Your task to perform on an android device: Go to Wikipedia Image 0: 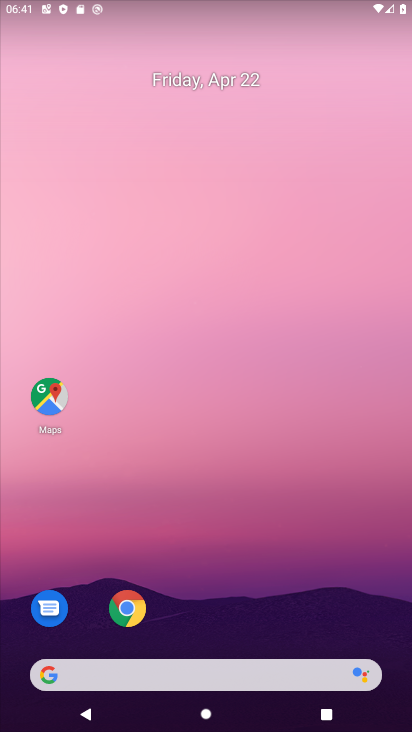
Step 0: drag from (221, 631) to (211, 174)
Your task to perform on an android device: Go to Wikipedia Image 1: 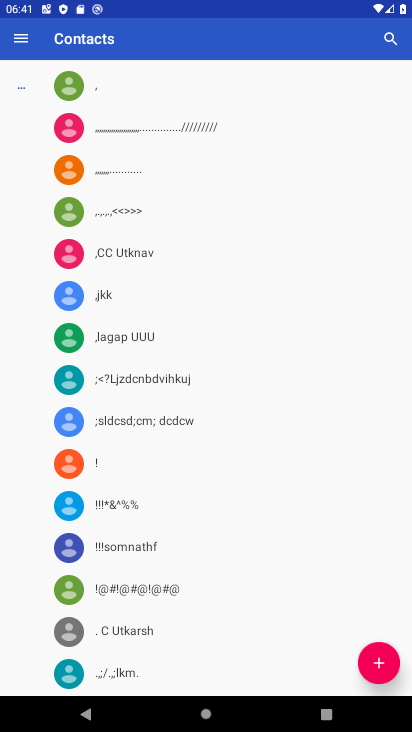
Step 1: press home button
Your task to perform on an android device: Go to Wikipedia Image 2: 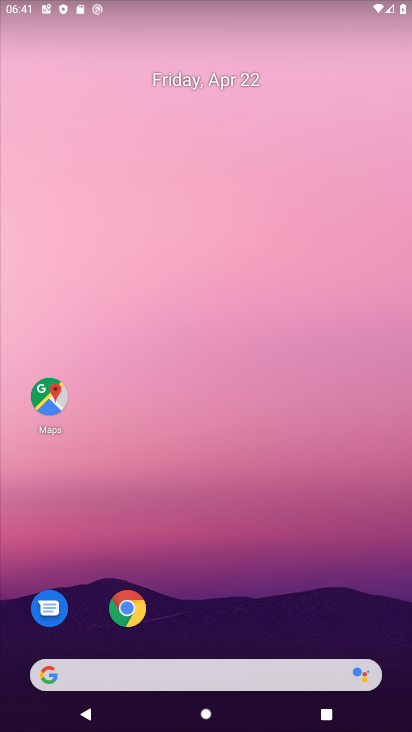
Step 2: drag from (213, 625) to (225, 154)
Your task to perform on an android device: Go to Wikipedia Image 3: 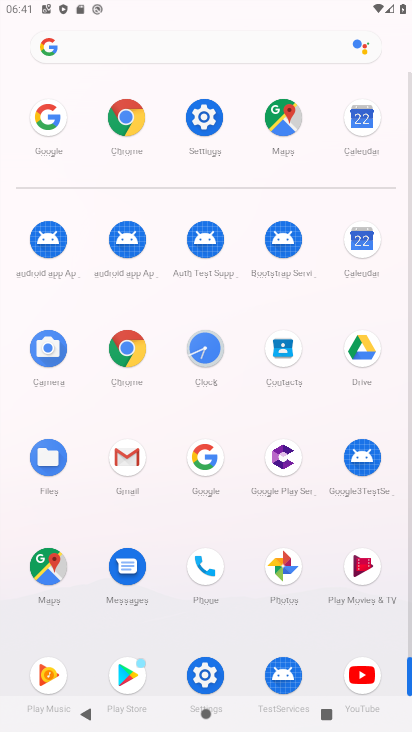
Step 3: click (134, 144)
Your task to perform on an android device: Go to Wikipedia Image 4: 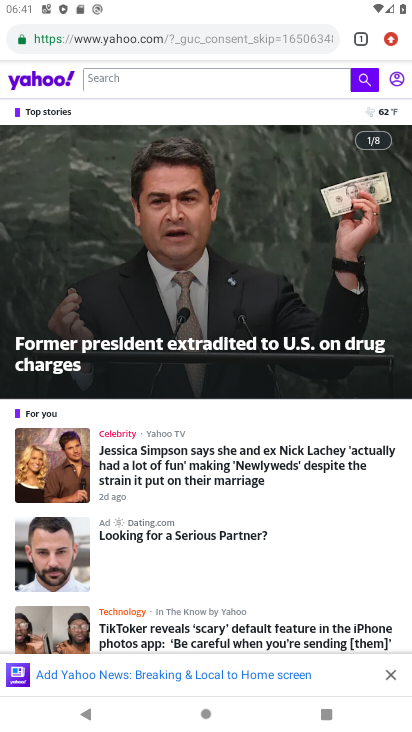
Step 4: click (366, 35)
Your task to perform on an android device: Go to Wikipedia Image 5: 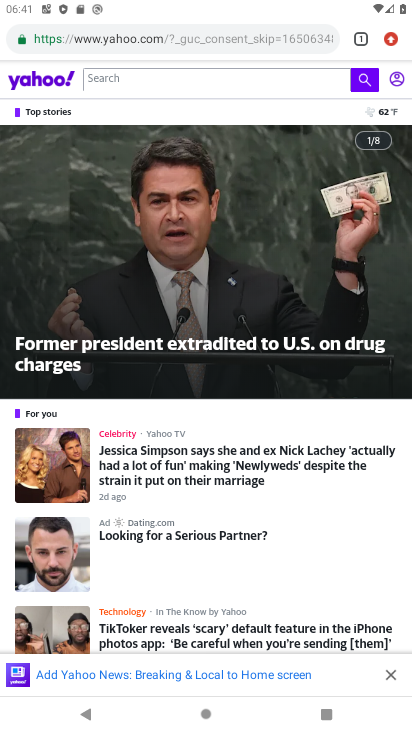
Step 5: click (358, 37)
Your task to perform on an android device: Go to Wikipedia Image 6: 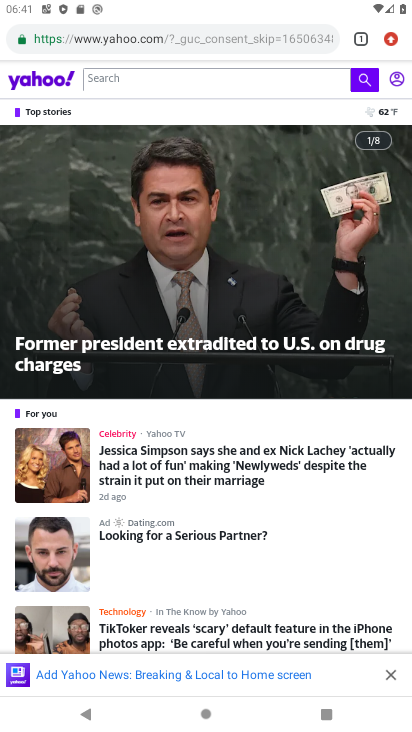
Step 6: click (359, 37)
Your task to perform on an android device: Go to Wikipedia Image 7: 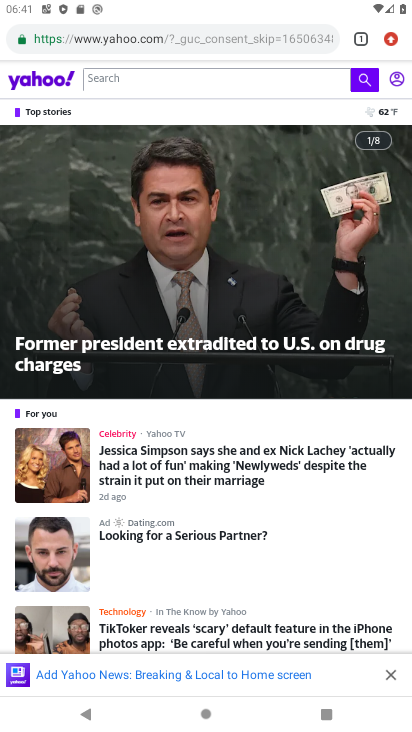
Step 7: click (363, 40)
Your task to perform on an android device: Go to Wikipedia Image 8: 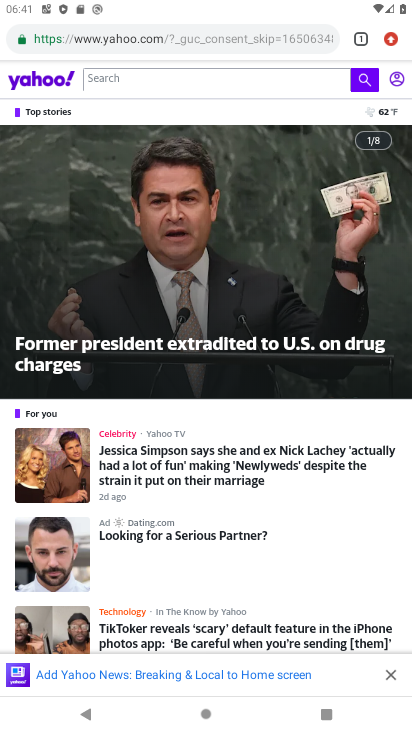
Step 8: click (362, 42)
Your task to perform on an android device: Go to Wikipedia Image 9: 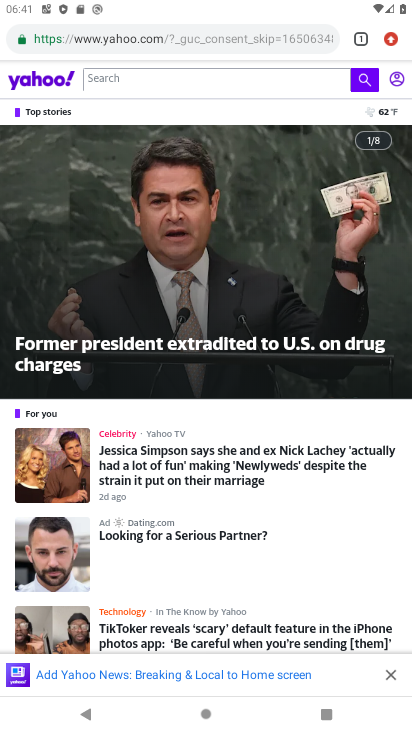
Step 9: click (361, 44)
Your task to perform on an android device: Go to Wikipedia Image 10: 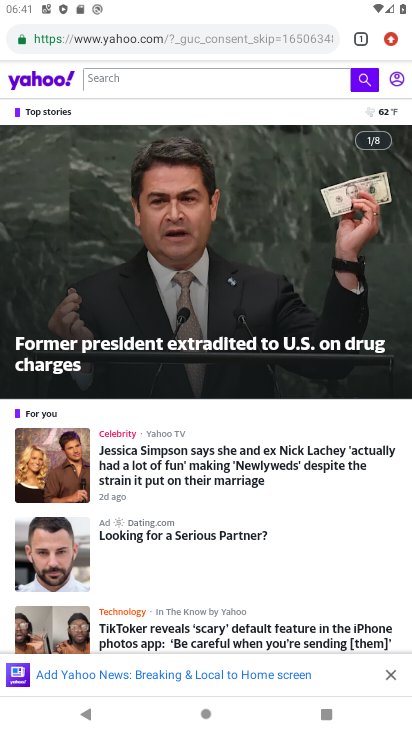
Step 10: click (363, 38)
Your task to perform on an android device: Go to Wikipedia Image 11: 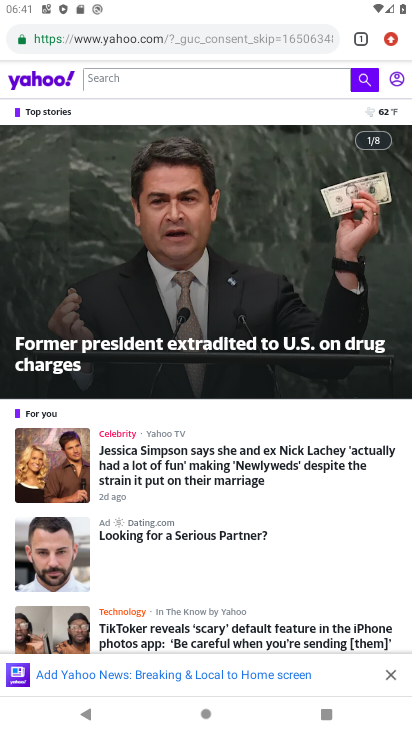
Step 11: click (359, 40)
Your task to perform on an android device: Go to Wikipedia Image 12: 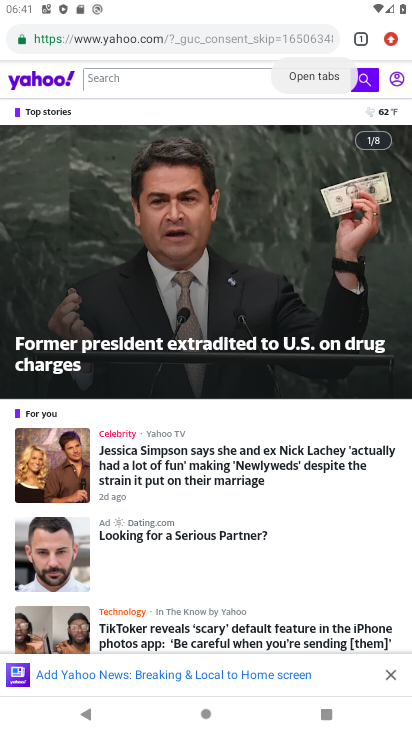
Step 12: click (362, 43)
Your task to perform on an android device: Go to Wikipedia Image 13: 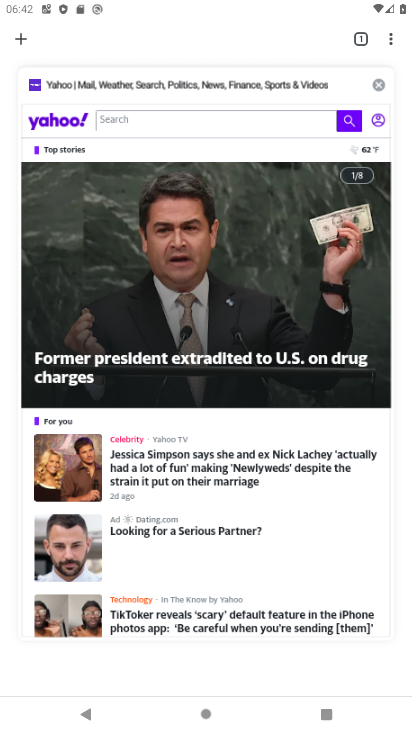
Step 13: click (381, 90)
Your task to perform on an android device: Go to Wikipedia Image 14: 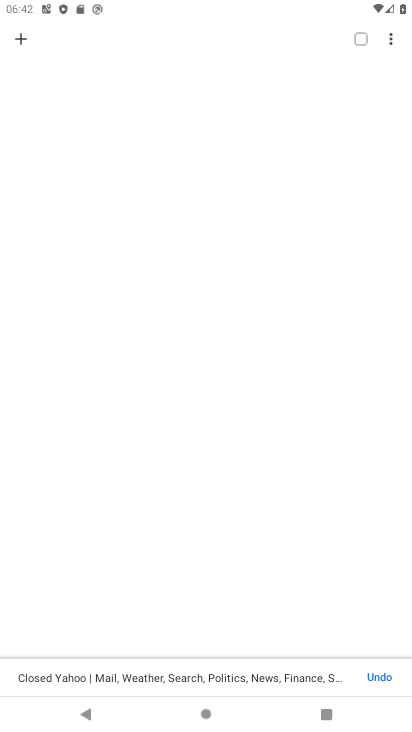
Step 14: click (19, 38)
Your task to perform on an android device: Go to Wikipedia Image 15: 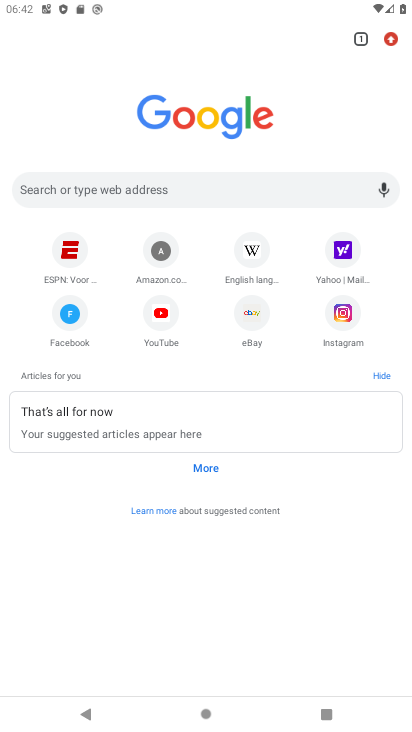
Step 15: click (102, 180)
Your task to perform on an android device: Go to Wikipedia Image 16: 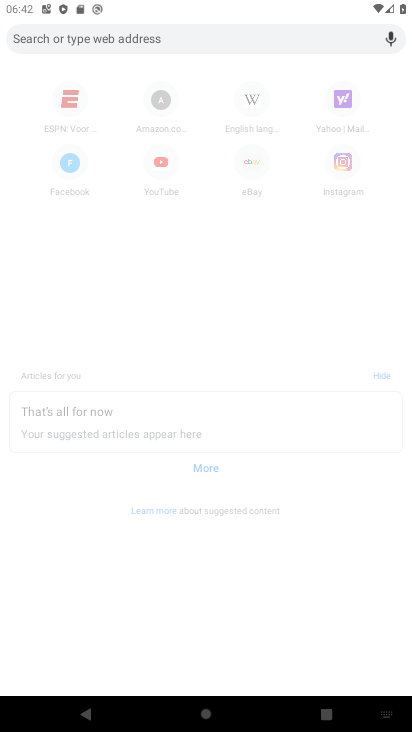
Step 16: type "wikipedia"
Your task to perform on an android device: Go to Wikipedia Image 17: 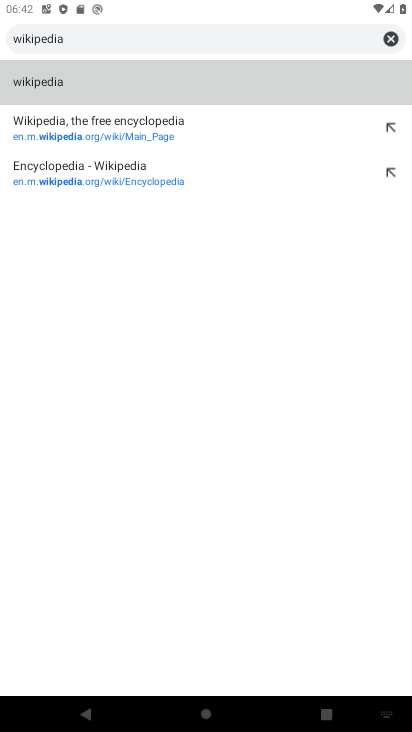
Step 17: click (83, 130)
Your task to perform on an android device: Go to Wikipedia Image 18: 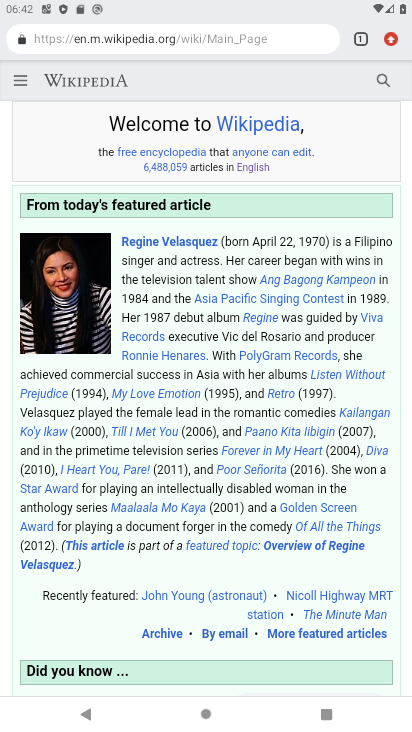
Step 18: task complete